Your task to perform on an android device: turn off picture-in-picture Image 0: 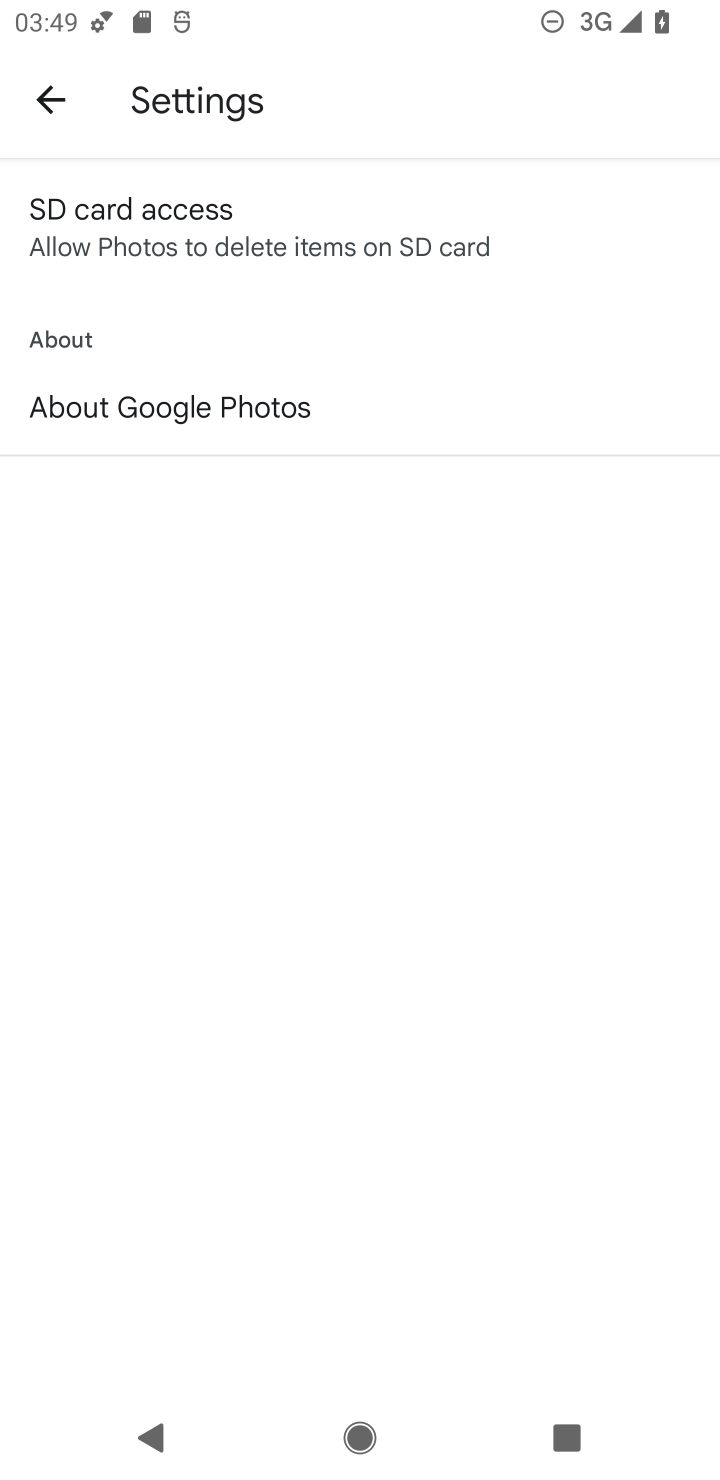
Step 0: press home button
Your task to perform on an android device: turn off picture-in-picture Image 1: 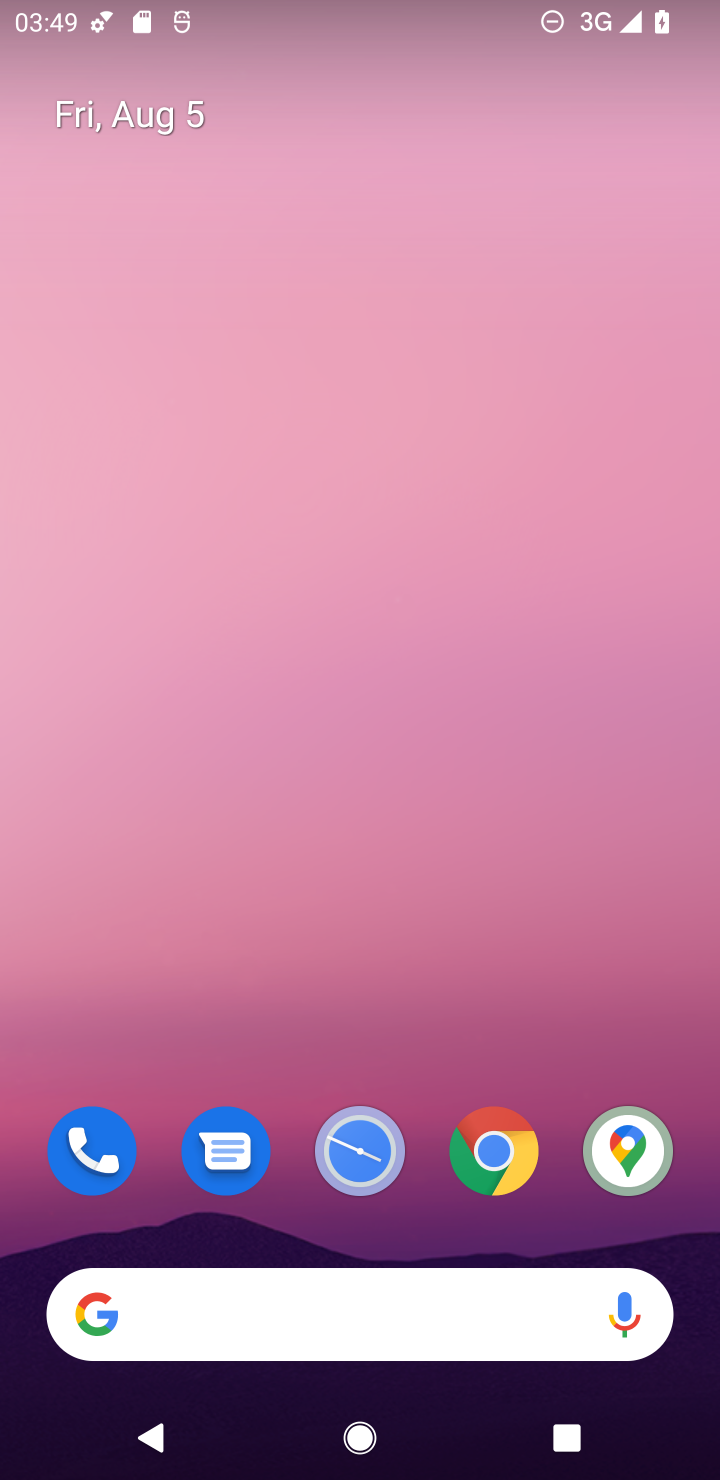
Step 1: click (524, 1166)
Your task to perform on an android device: turn off picture-in-picture Image 2: 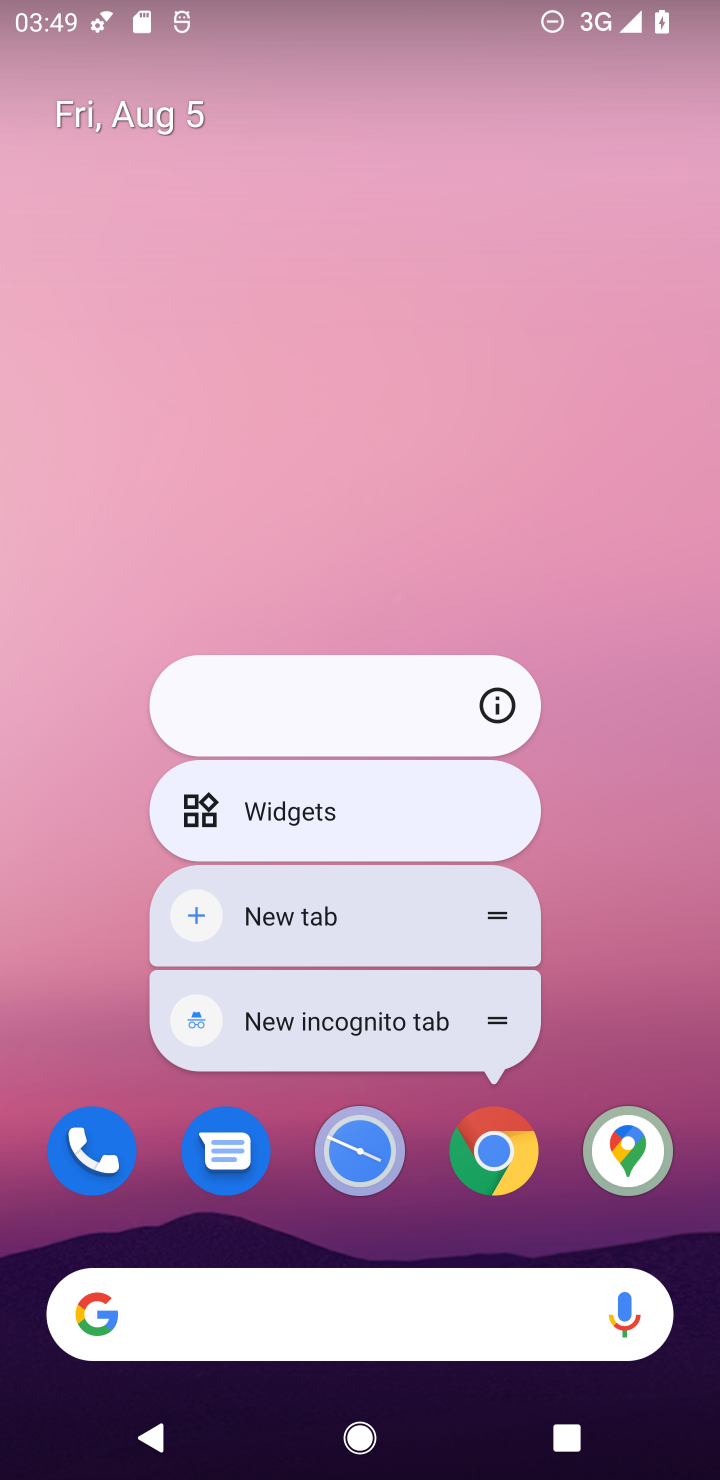
Step 2: click (512, 699)
Your task to perform on an android device: turn off picture-in-picture Image 3: 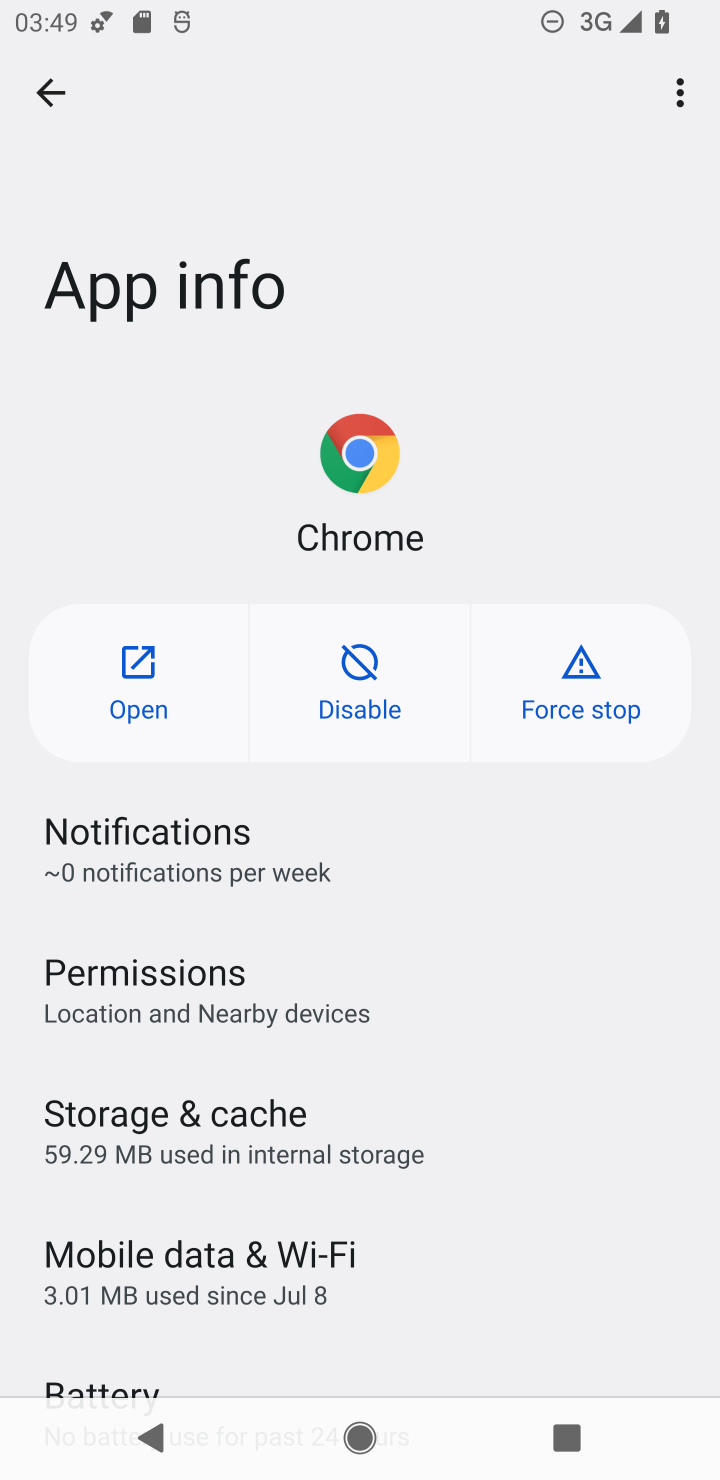
Step 3: drag from (278, 1320) to (242, 420)
Your task to perform on an android device: turn off picture-in-picture Image 4: 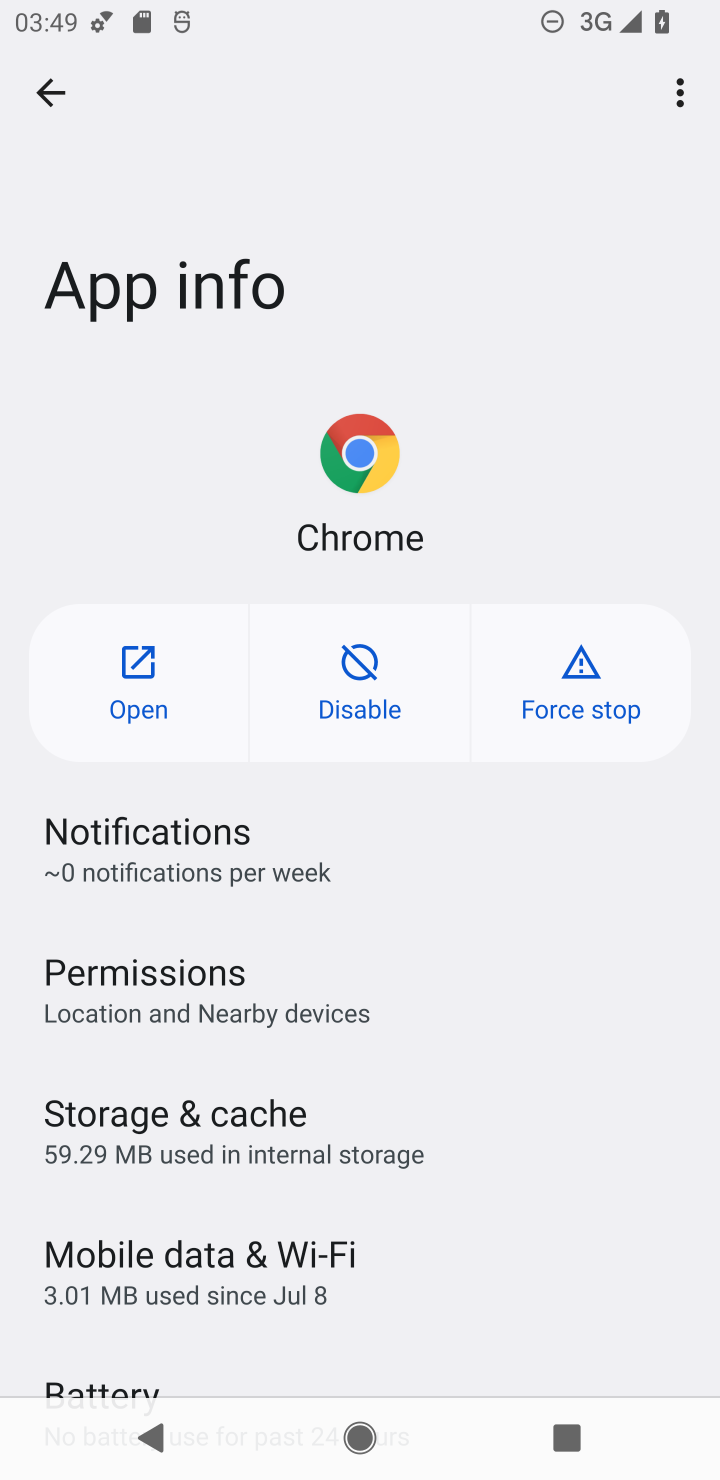
Step 4: drag from (334, 940) to (366, 115)
Your task to perform on an android device: turn off picture-in-picture Image 5: 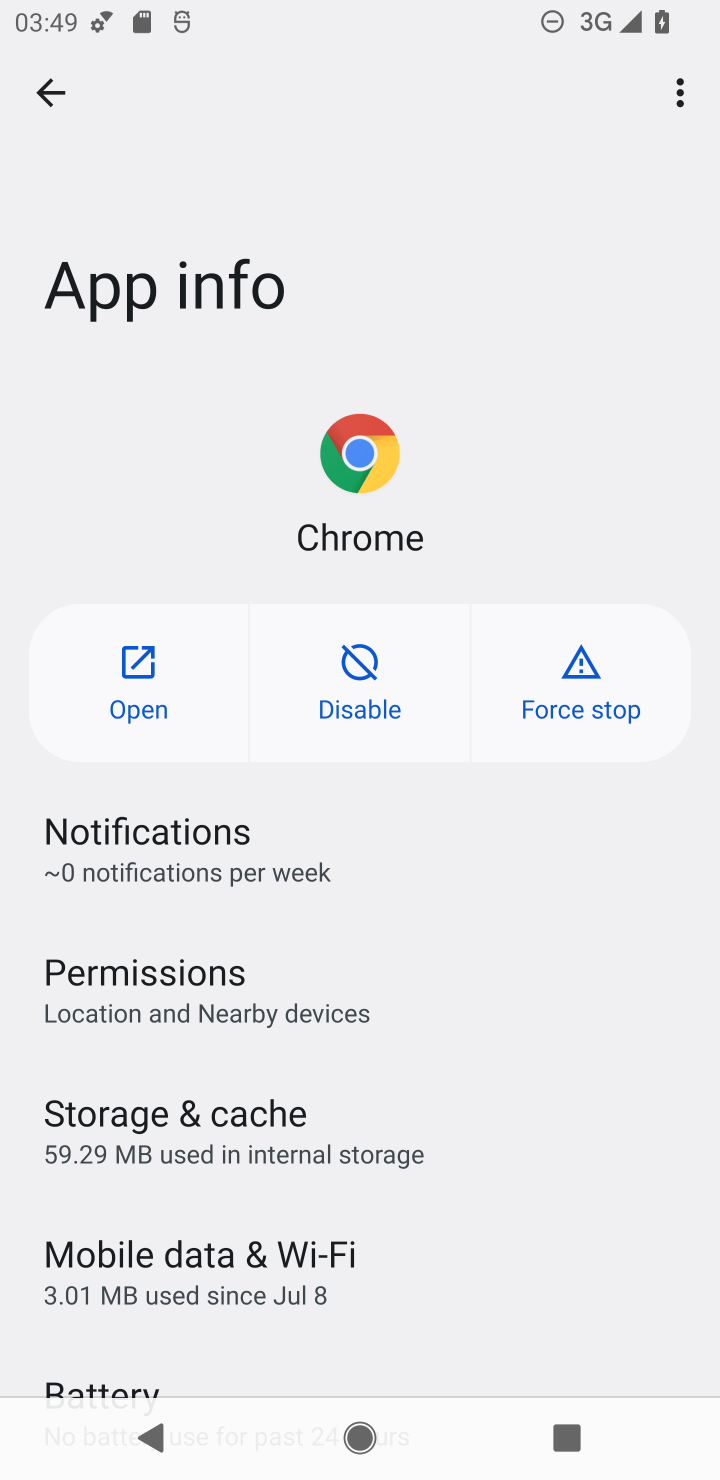
Step 5: drag from (410, 987) to (400, 392)
Your task to perform on an android device: turn off picture-in-picture Image 6: 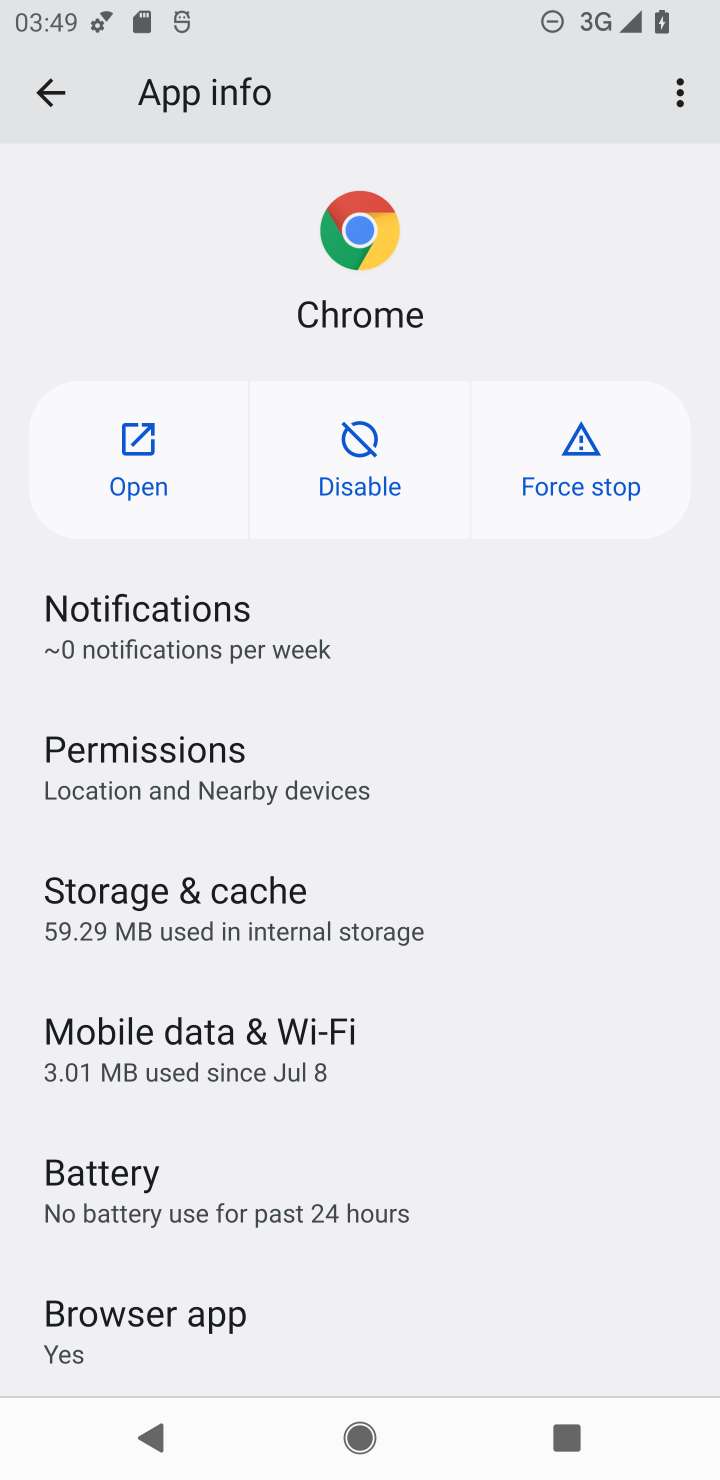
Step 6: drag from (328, 1265) to (356, 588)
Your task to perform on an android device: turn off picture-in-picture Image 7: 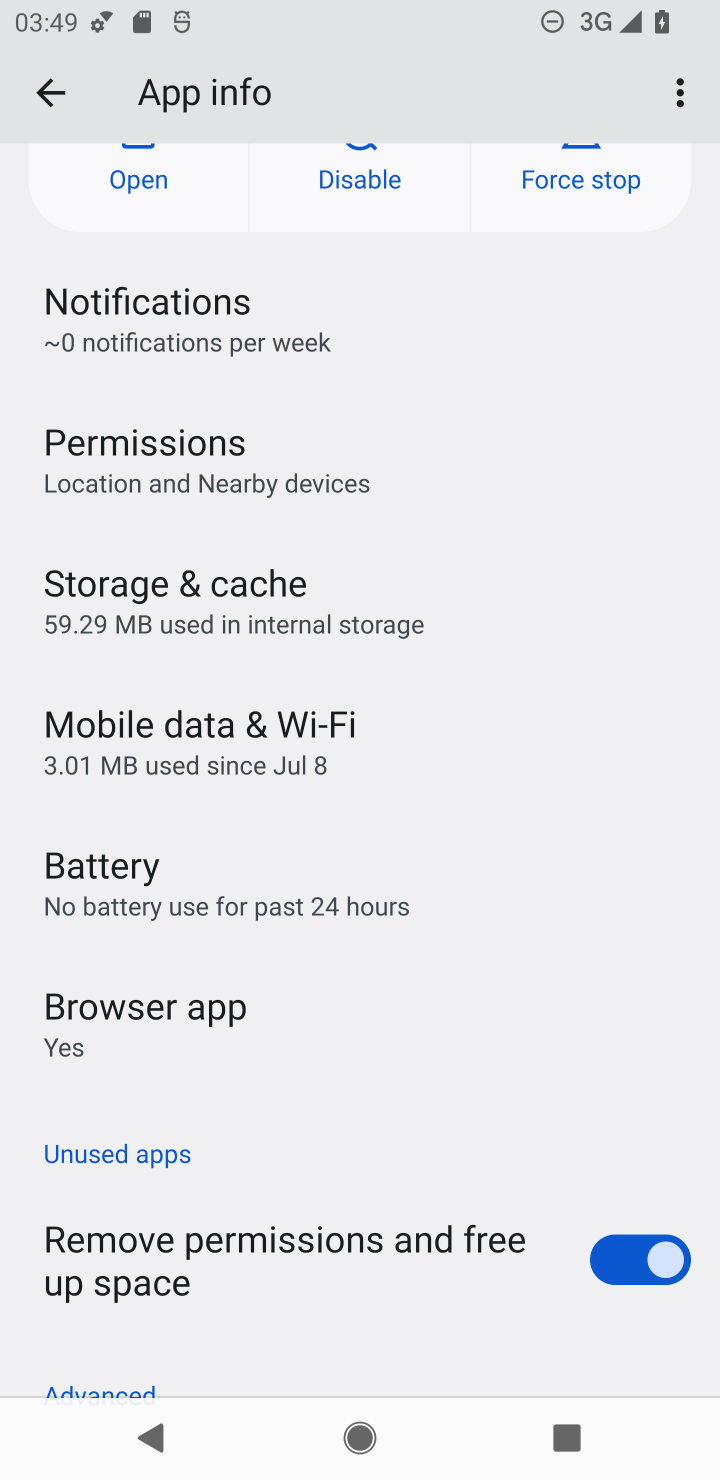
Step 7: drag from (365, 1165) to (410, 303)
Your task to perform on an android device: turn off picture-in-picture Image 8: 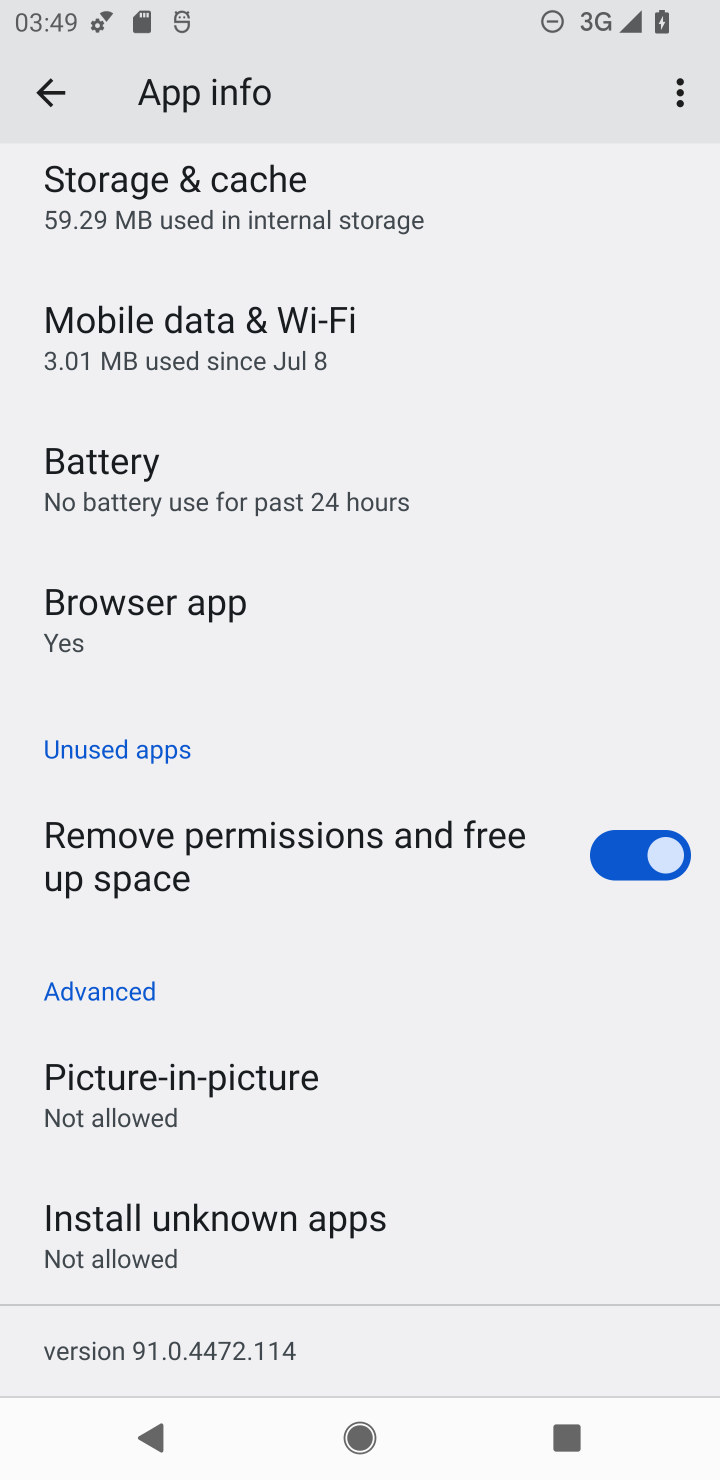
Step 8: click (330, 1072)
Your task to perform on an android device: turn off picture-in-picture Image 9: 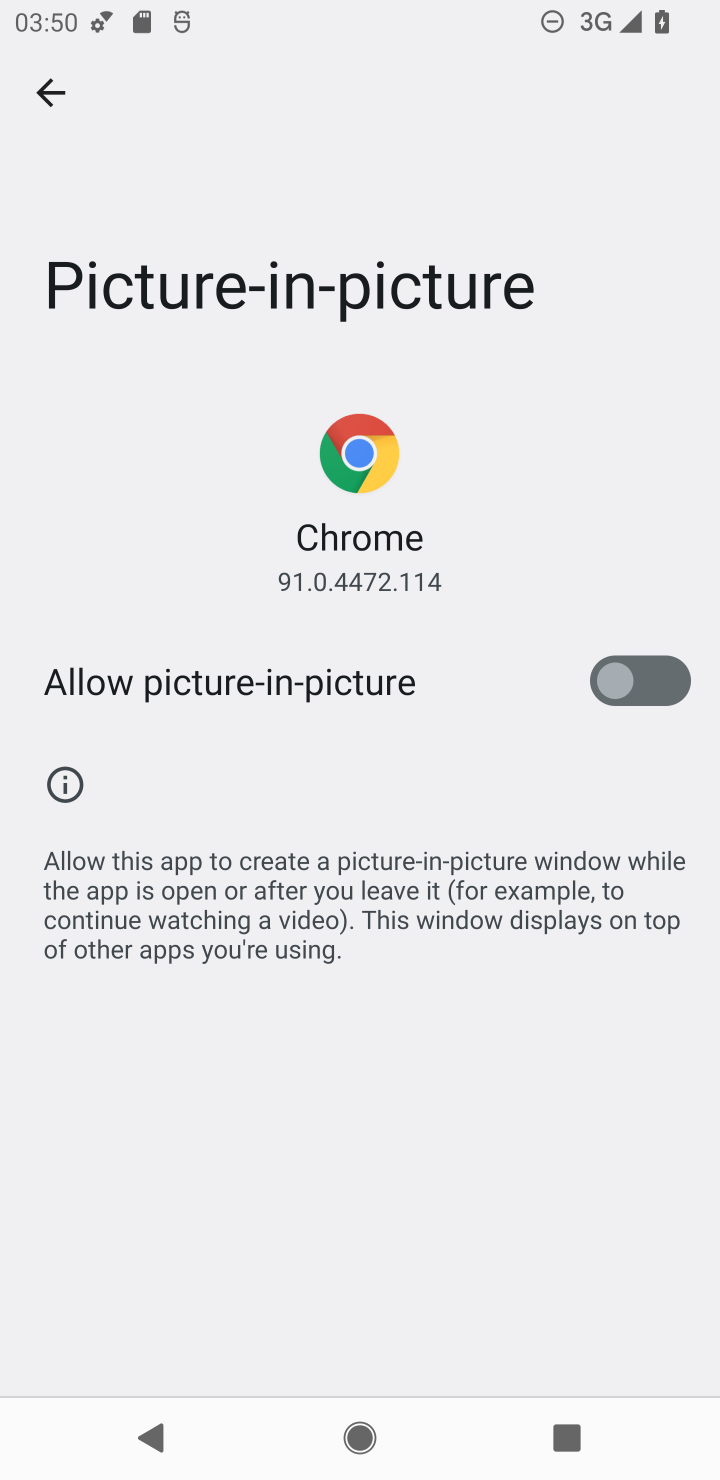
Step 9: task complete